Your task to perform on an android device: set an alarm Image 0: 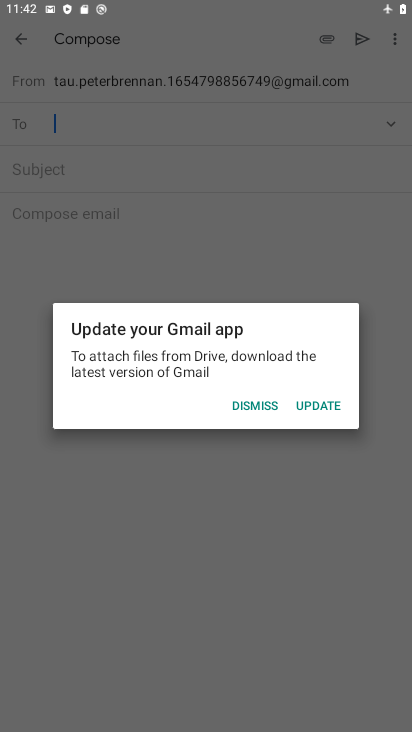
Step 0: press home button
Your task to perform on an android device: set an alarm Image 1: 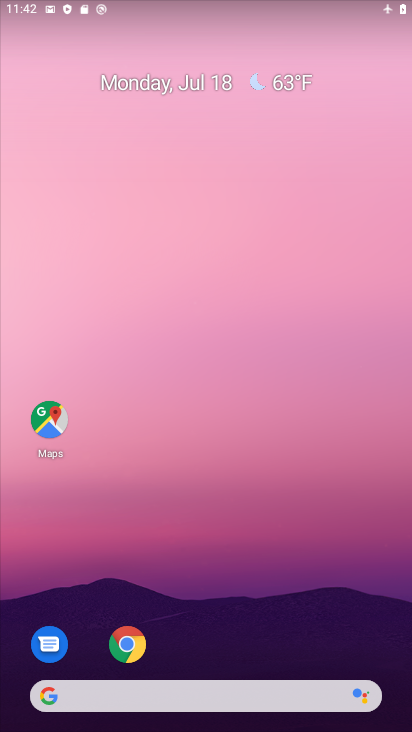
Step 1: drag from (232, 619) to (170, 41)
Your task to perform on an android device: set an alarm Image 2: 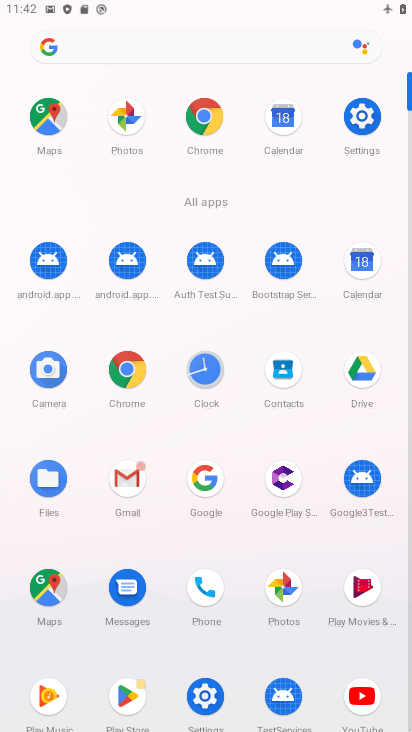
Step 2: click (202, 377)
Your task to perform on an android device: set an alarm Image 3: 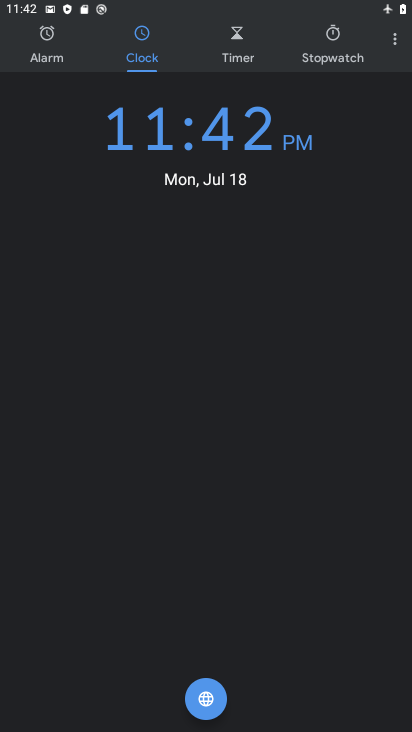
Step 3: click (50, 29)
Your task to perform on an android device: set an alarm Image 4: 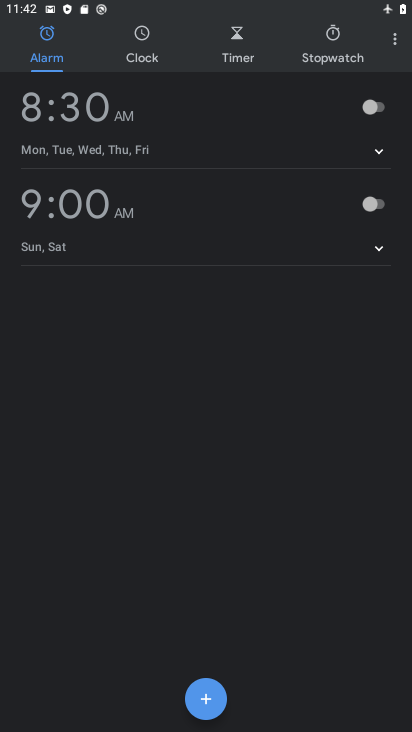
Step 4: click (202, 693)
Your task to perform on an android device: set an alarm Image 5: 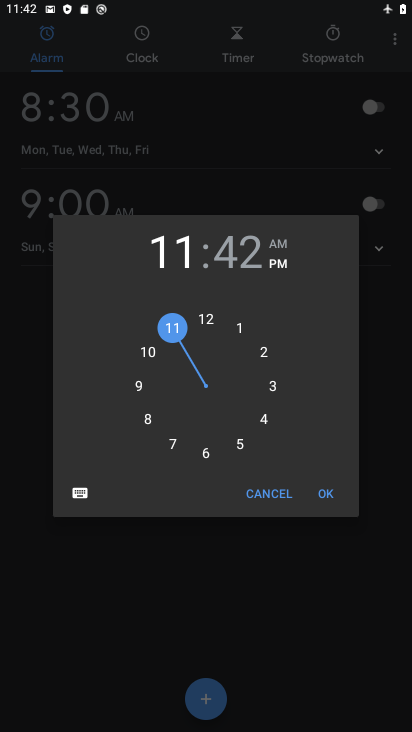
Step 5: click (322, 494)
Your task to perform on an android device: set an alarm Image 6: 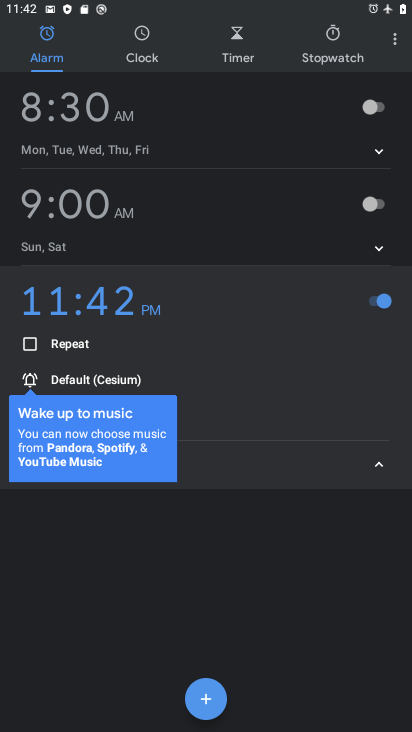
Step 6: task complete